Your task to perform on an android device: turn on priority inbox in the gmail app Image 0: 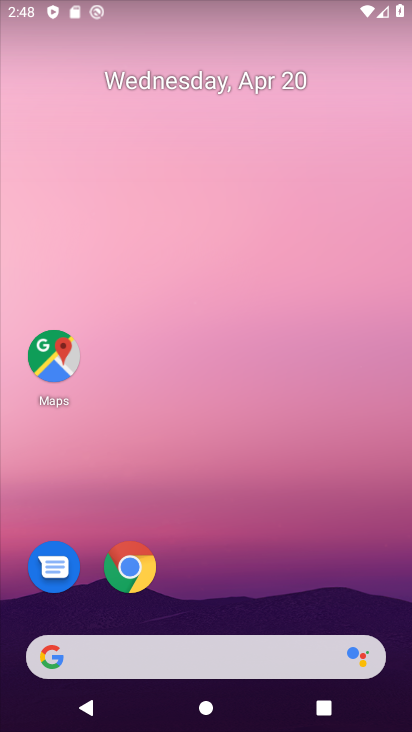
Step 0: drag from (204, 561) to (377, 5)
Your task to perform on an android device: turn on priority inbox in the gmail app Image 1: 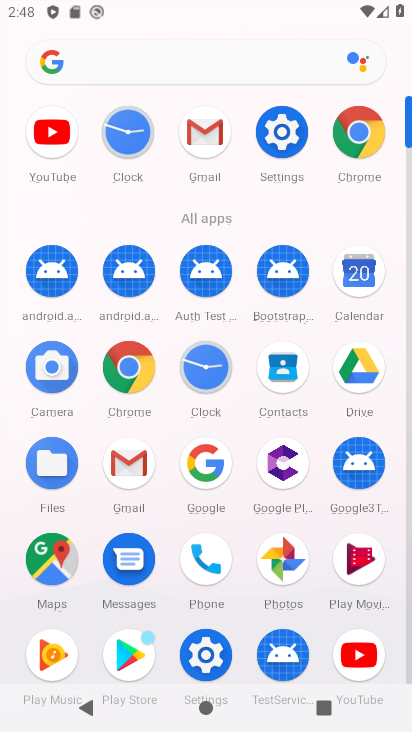
Step 1: click (131, 462)
Your task to perform on an android device: turn on priority inbox in the gmail app Image 2: 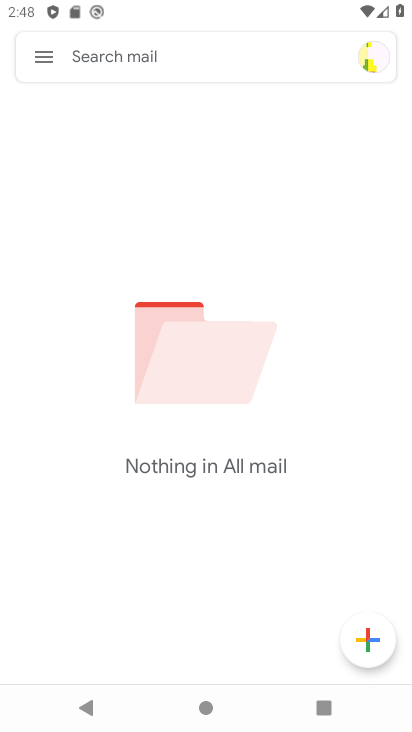
Step 2: click (42, 57)
Your task to perform on an android device: turn on priority inbox in the gmail app Image 3: 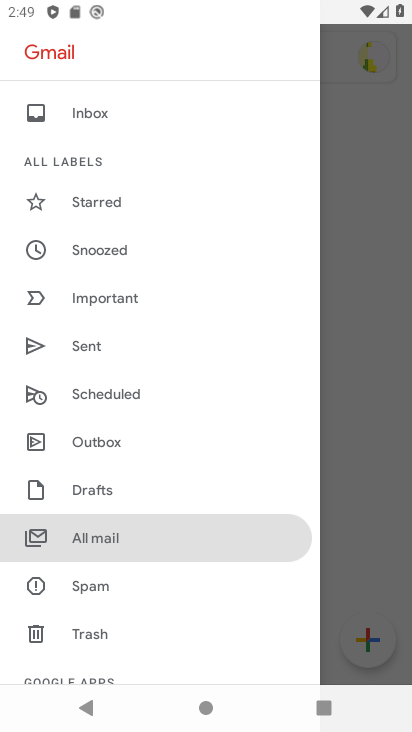
Step 3: drag from (87, 620) to (219, 148)
Your task to perform on an android device: turn on priority inbox in the gmail app Image 4: 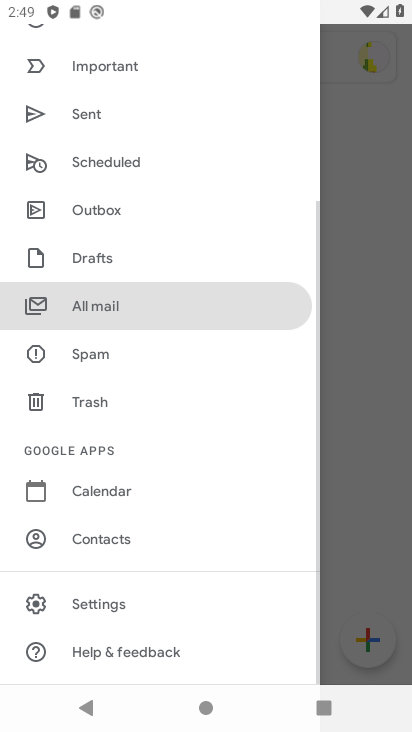
Step 4: click (100, 600)
Your task to perform on an android device: turn on priority inbox in the gmail app Image 5: 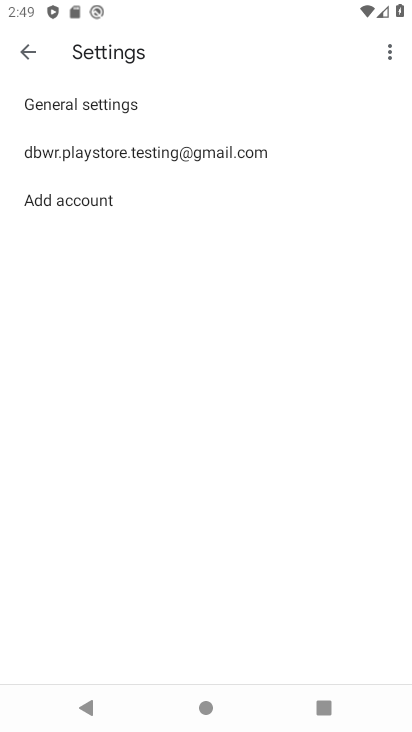
Step 5: click (121, 149)
Your task to perform on an android device: turn on priority inbox in the gmail app Image 6: 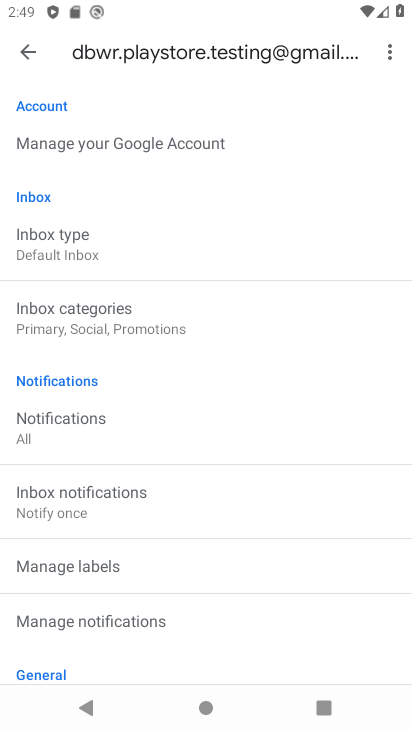
Step 6: click (85, 247)
Your task to perform on an android device: turn on priority inbox in the gmail app Image 7: 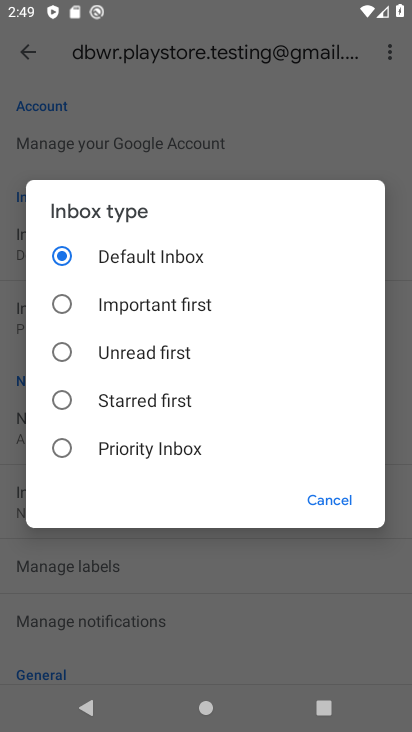
Step 7: click (71, 457)
Your task to perform on an android device: turn on priority inbox in the gmail app Image 8: 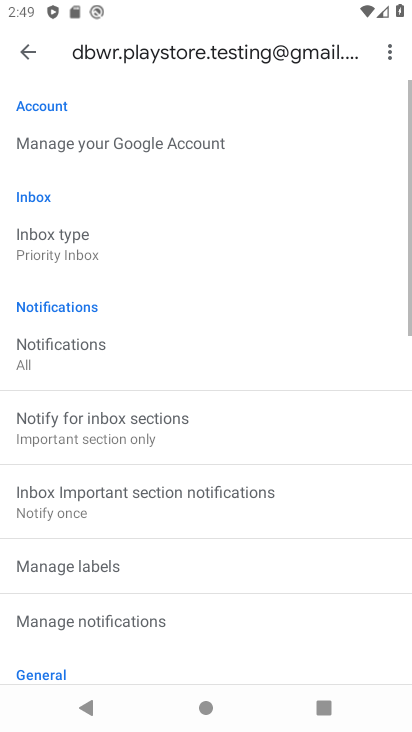
Step 8: task complete